Your task to perform on an android device: Open my contact list Image 0: 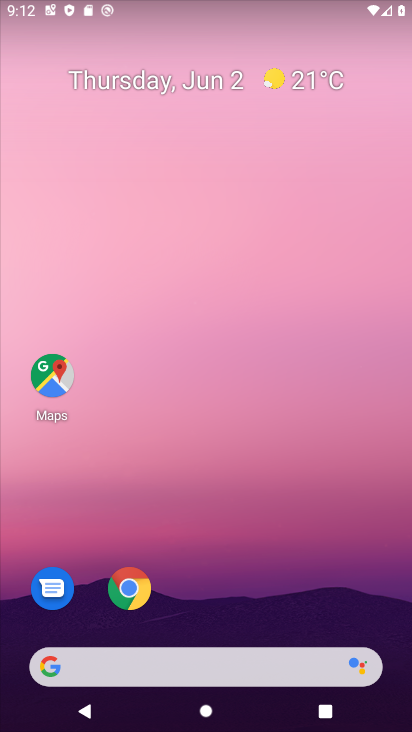
Step 0: drag from (193, 674) to (194, 150)
Your task to perform on an android device: Open my contact list Image 1: 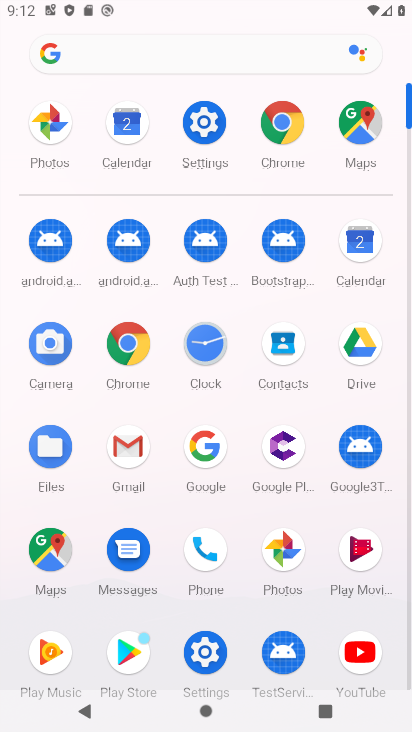
Step 1: click (293, 350)
Your task to perform on an android device: Open my contact list Image 2: 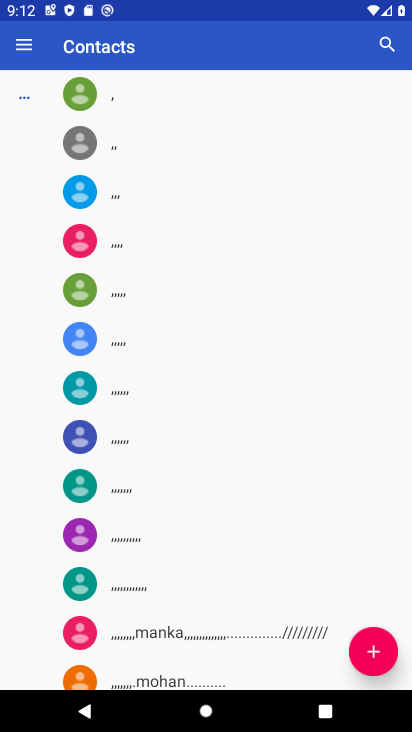
Step 2: task complete